Your task to perform on an android device: Go to Yahoo.com Image 0: 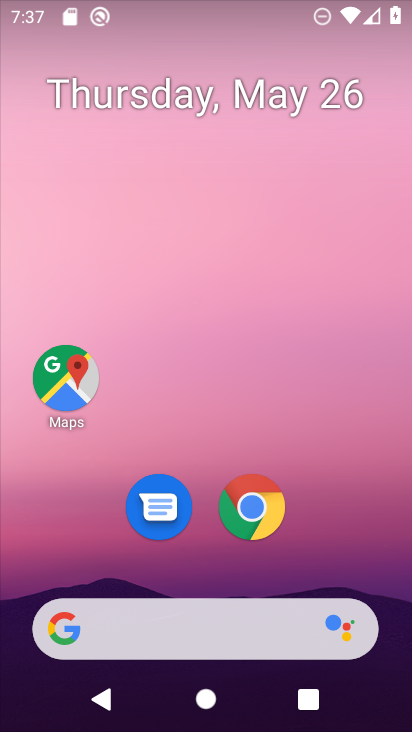
Step 0: click (243, 506)
Your task to perform on an android device: Go to Yahoo.com Image 1: 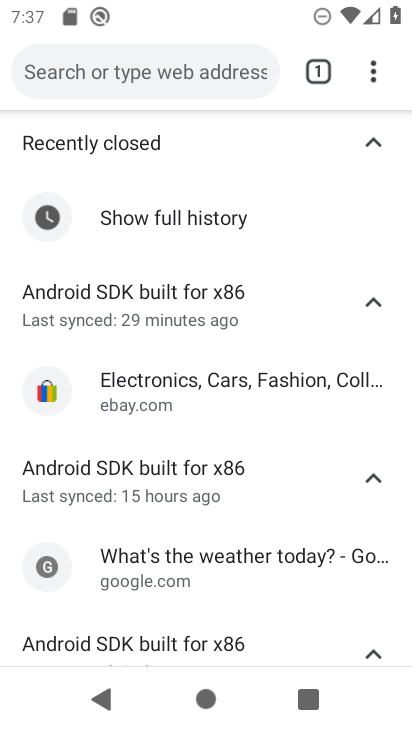
Step 1: press home button
Your task to perform on an android device: Go to Yahoo.com Image 2: 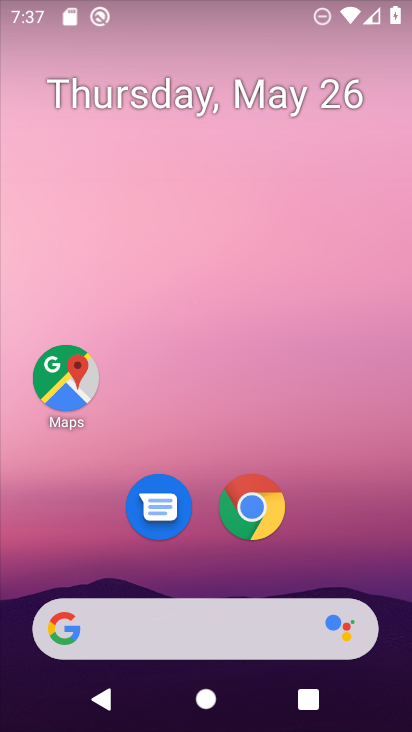
Step 2: click (244, 493)
Your task to perform on an android device: Go to Yahoo.com Image 3: 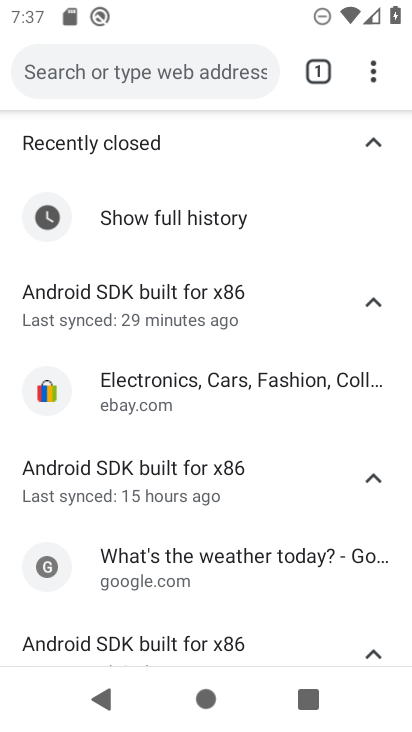
Step 3: press back button
Your task to perform on an android device: Go to Yahoo.com Image 4: 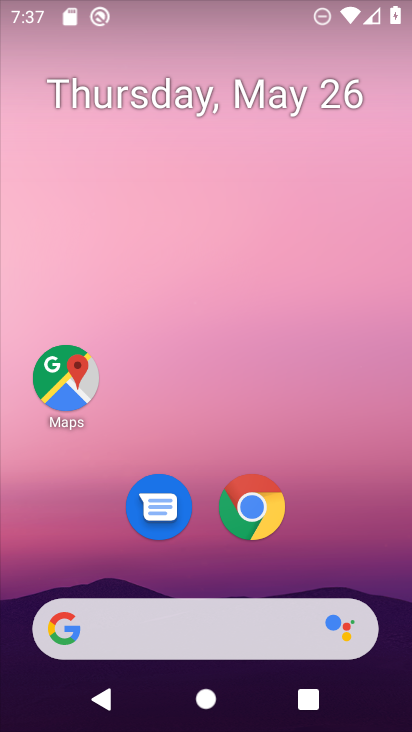
Step 4: click (236, 539)
Your task to perform on an android device: Go to Yahoo.com Image 5: 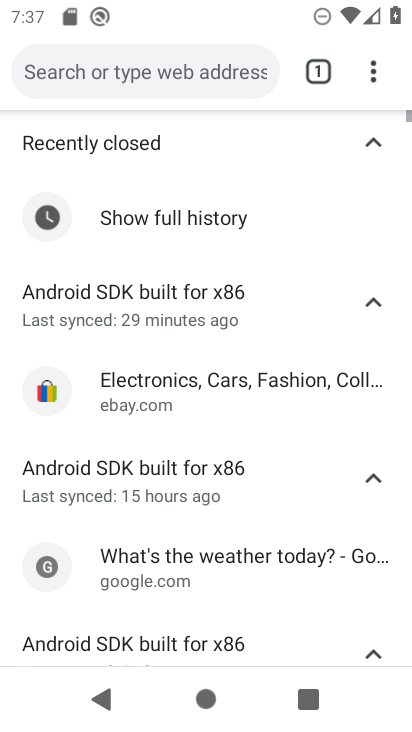
Step 5: click (62, 72)
Your task to perform on an android device: Go to Yahoo.com Image 6: 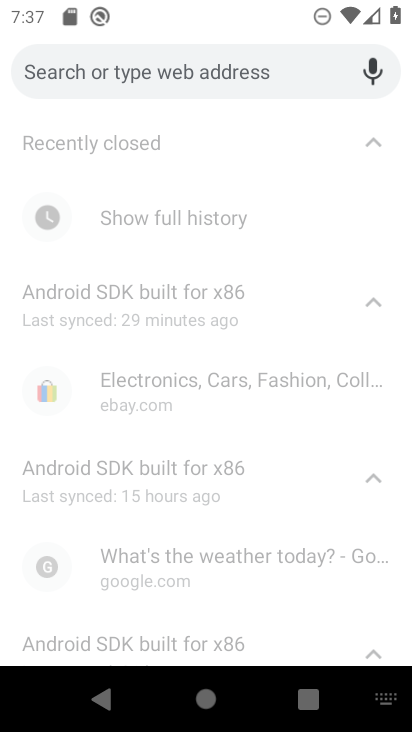
Step 6: type "www.yahoo.com"
Your task to perform on an android device: Go to Yahoo.com Image 7: 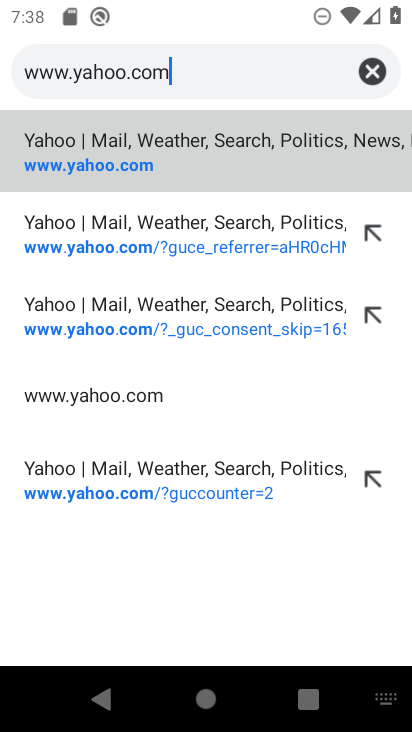
Step 7: click (69, 159)
Your task to perform on an android device: Go to Yahoo.com Image 8: 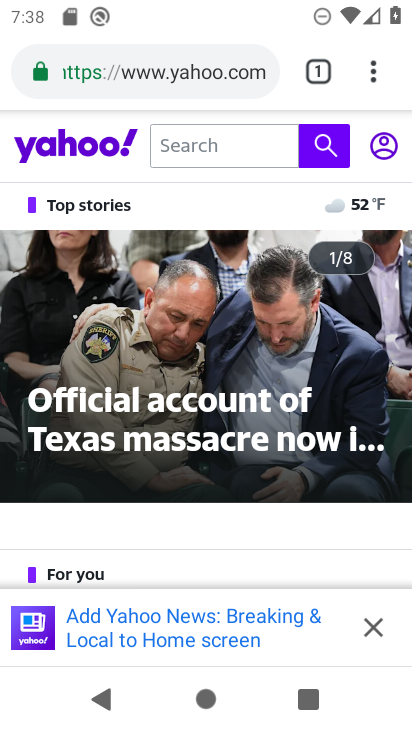
Step 8: task complete